Your task to perform on an android device: choose inbox layout in the gmail app Image 0: 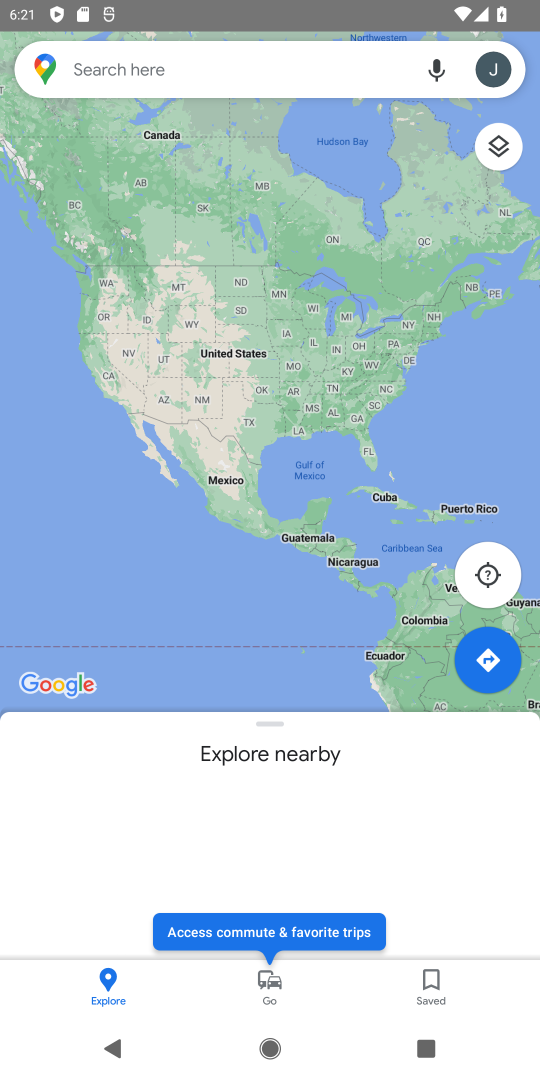
Step 0: press home button
Your task to perform on an android device: choose inbox layout in the gmail app Image 1: 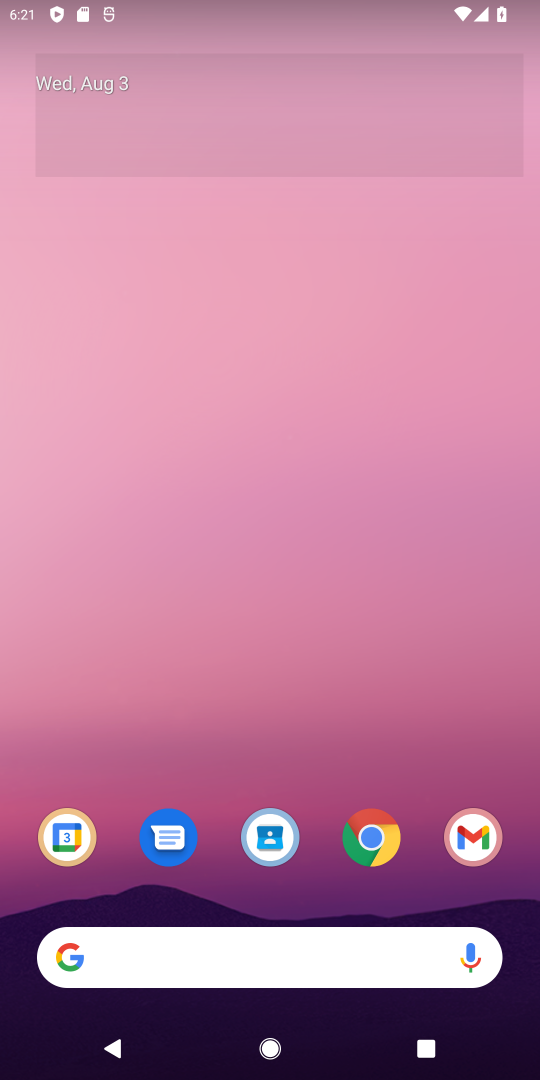
Step 1: drag from (306, 725) to (368, 223)
Your task to perform on an android device: choose inbox layout in the gmail app Image 2: 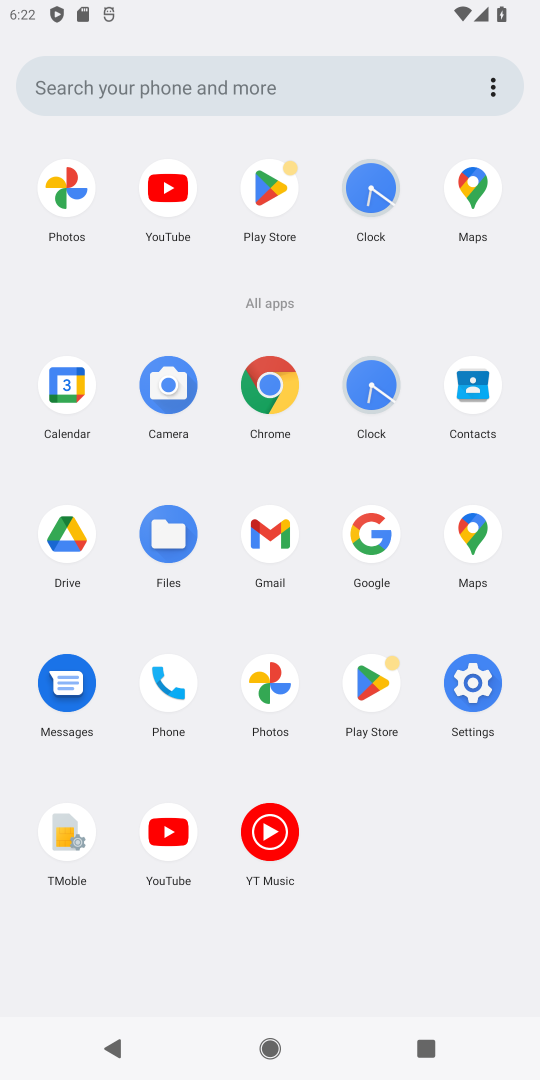
Step 2: click (266, 529)
Your task to perform on an android device: choose inbox layout in the gmail app Image 3: 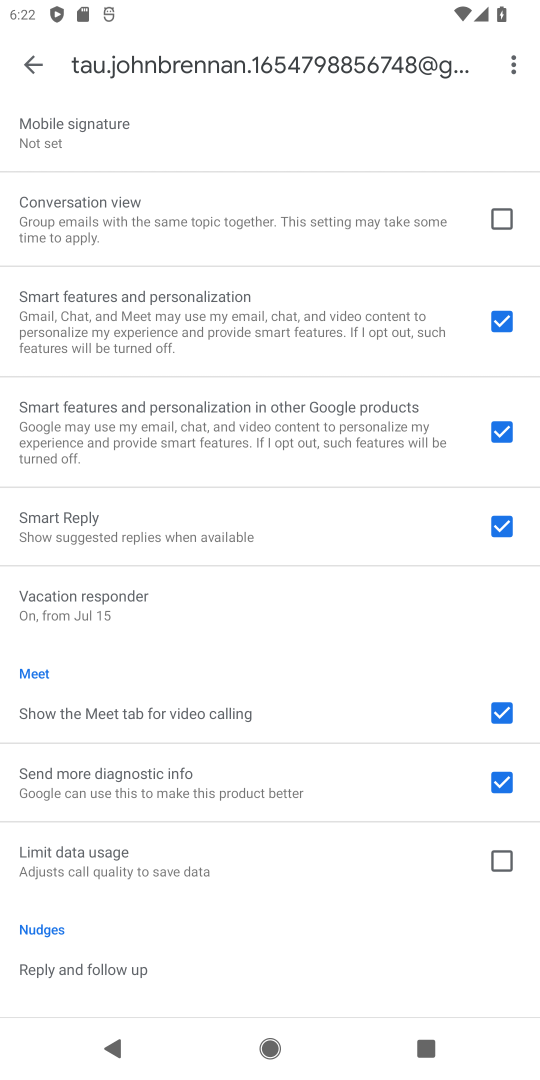
Step 3: click (39, 53)
Your task to perform on an android device: choose inbox layout in the gmail app Image 4: 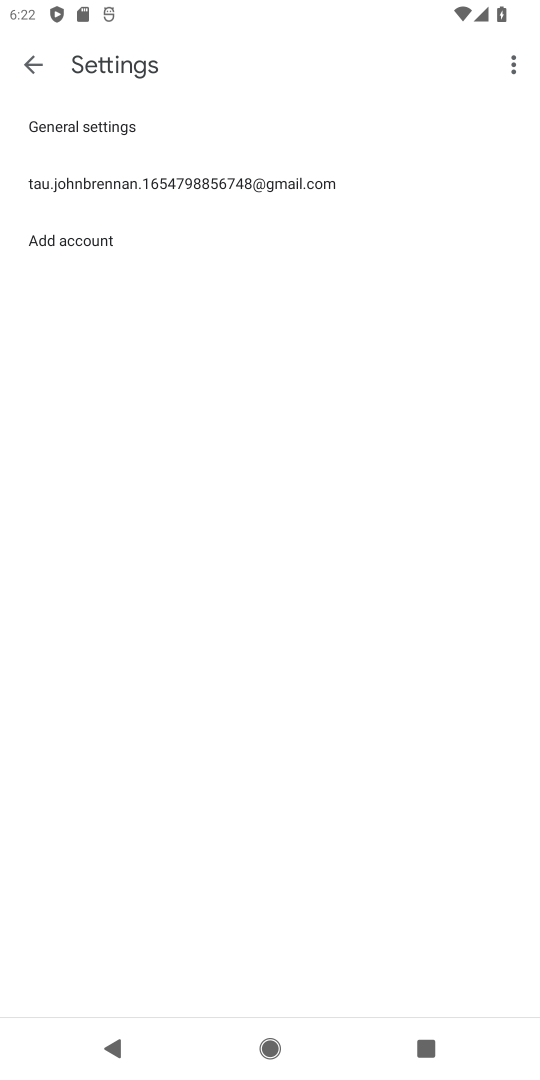
Step 4: click (31, 58)
Your task to perform on an android device: choose inbox layout in the gmail app Image 5: 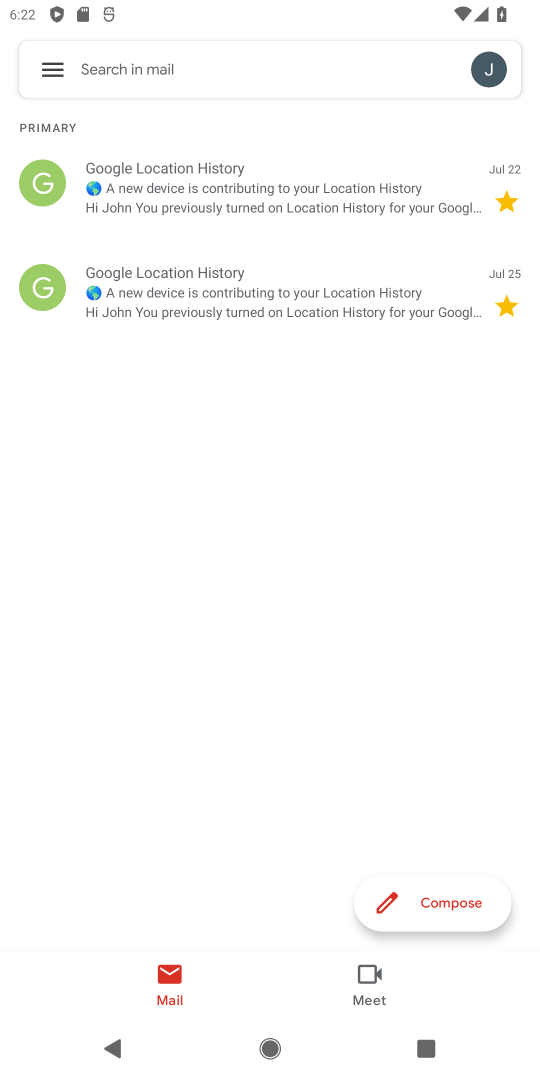
Step 5: click (54, 69)
Your task to perform on an android device: choose inbox layout in the gmail app Image 6: 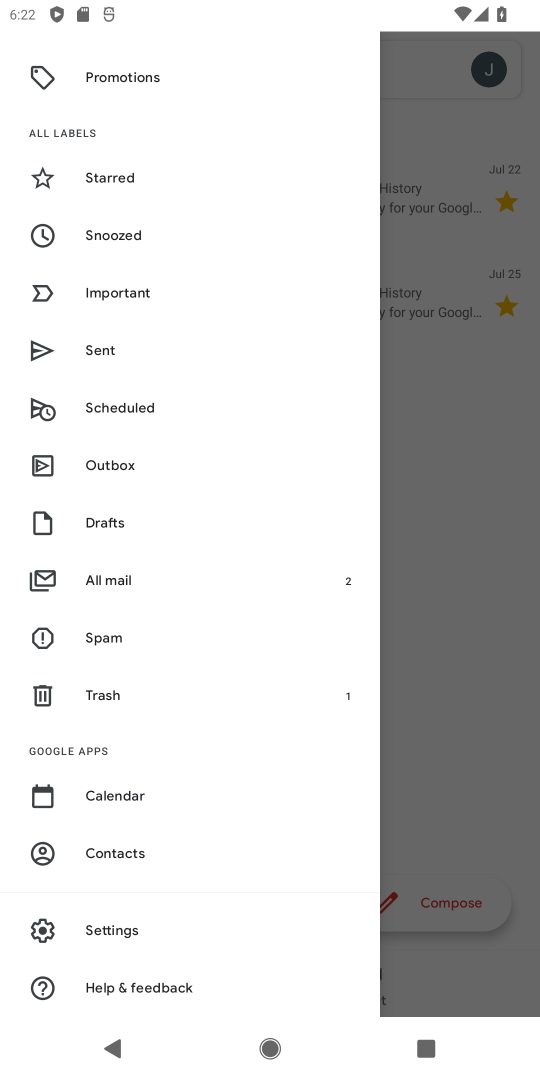
Step 6: click (109, 920)
Your task to perform on an android device: choose inbox layout in the gmail app Image 7: 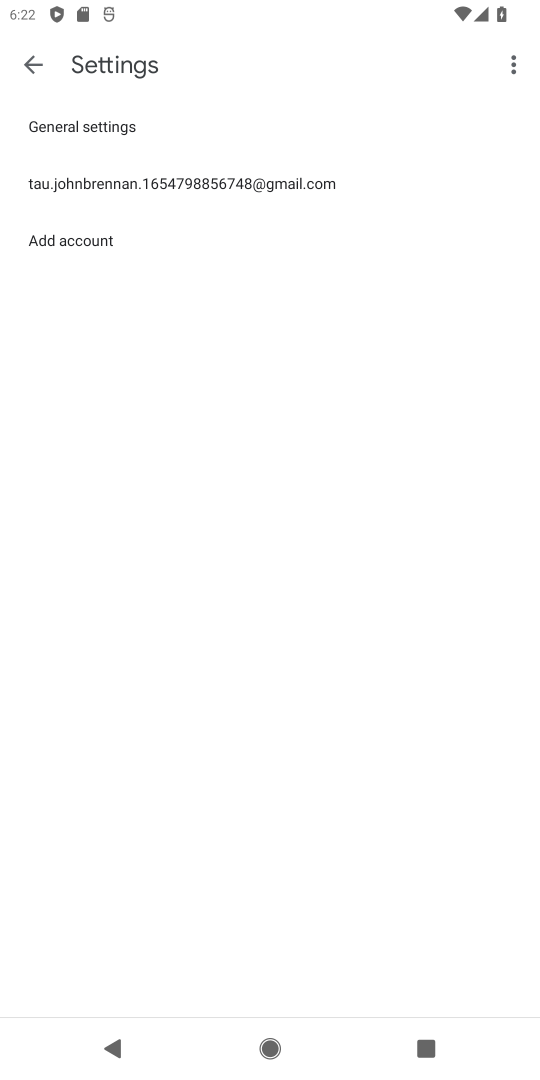
Step 7: click (65, 172)
Your task to perform on an android device: choose inbox layout in the gmail app Image 8: 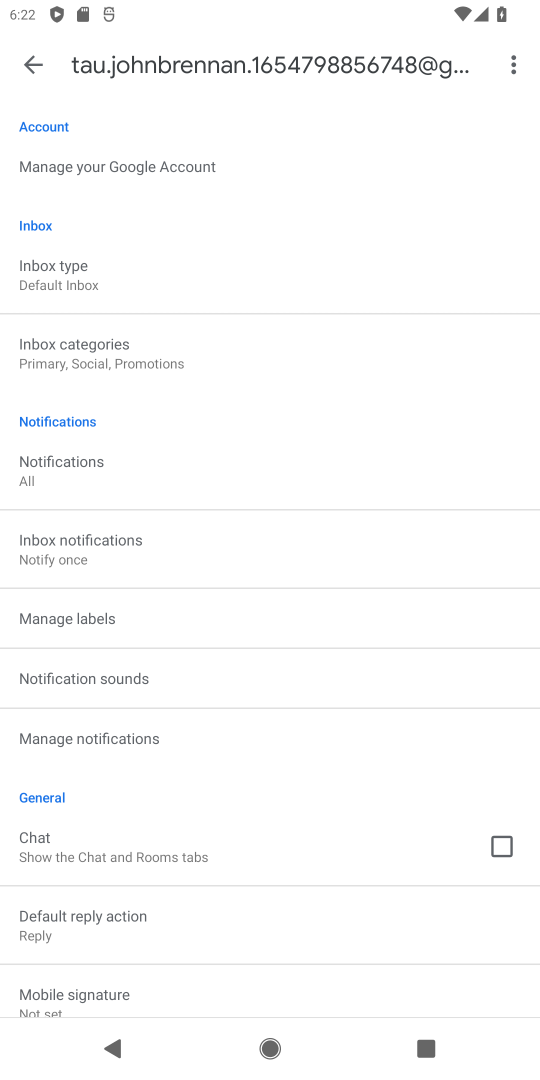
Step 8: click (52, 273)
Your task to perform on an android device: choose inbox layout in the gmail app Image 9: 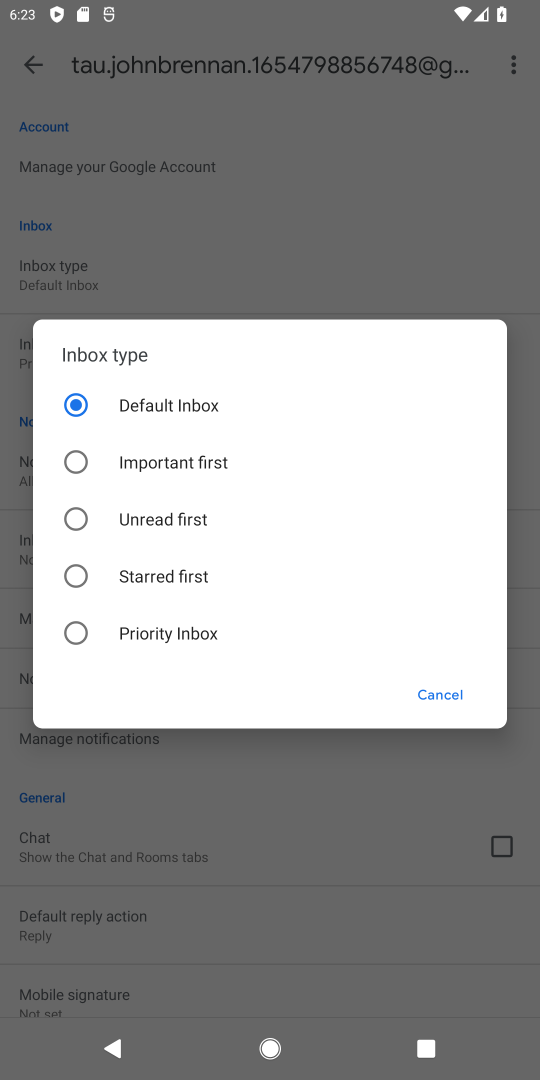
Step 9: task complete